Your task to perform on an android device: turn off sleep mode Image 0: 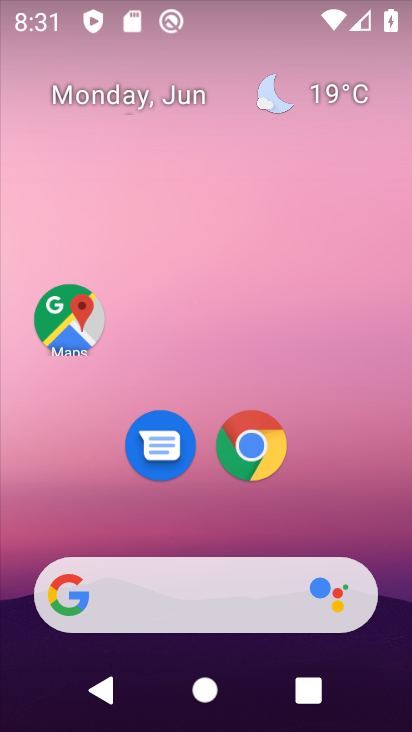
Step 0: drag from (153, 576) to (264, 141)
Your task to perform on an android device: turn off sleep mode Image 1: 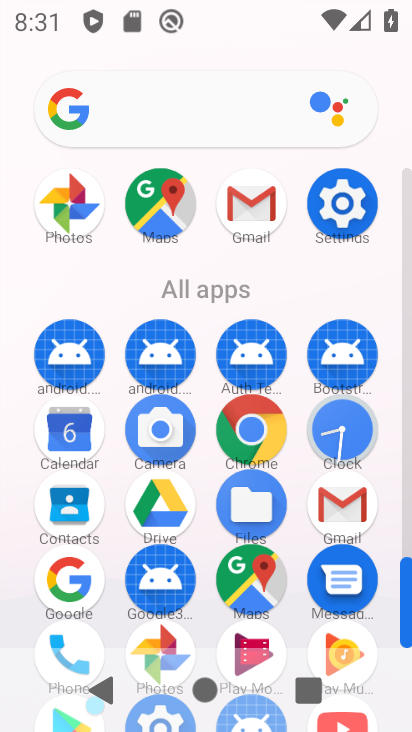
Step 1: drag from (128, 560) to (234, 254)
Your task to perform on an android device: turn off sleep mode Image 2: 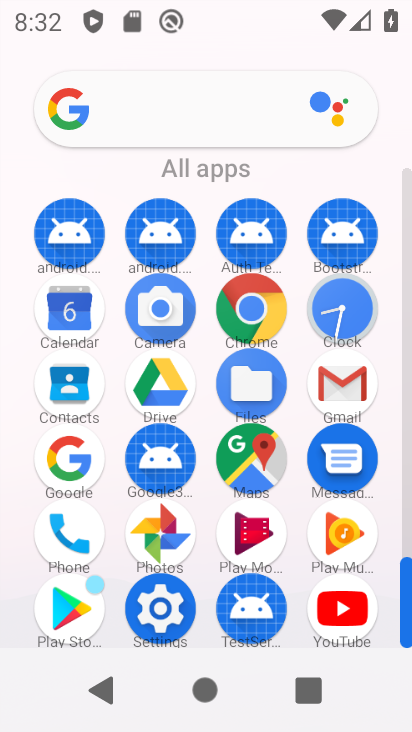
Step 2: click (171, 595)
Your task to perform on an android device: turn off sleep mode Image 3: 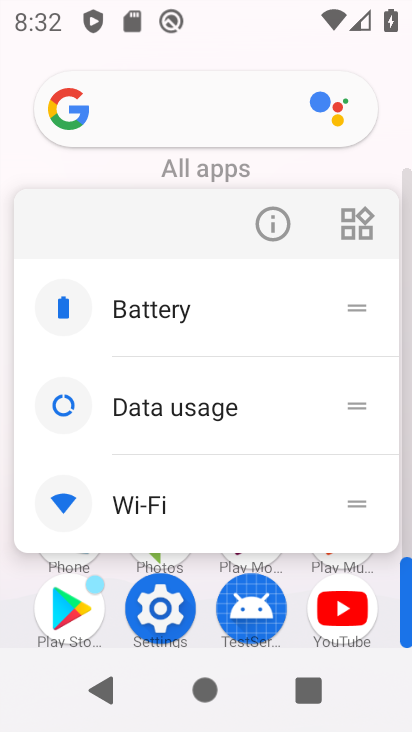
Step 3: click (187, 599)
Your task to perform on an android device: turn off sleep mode Image 4: 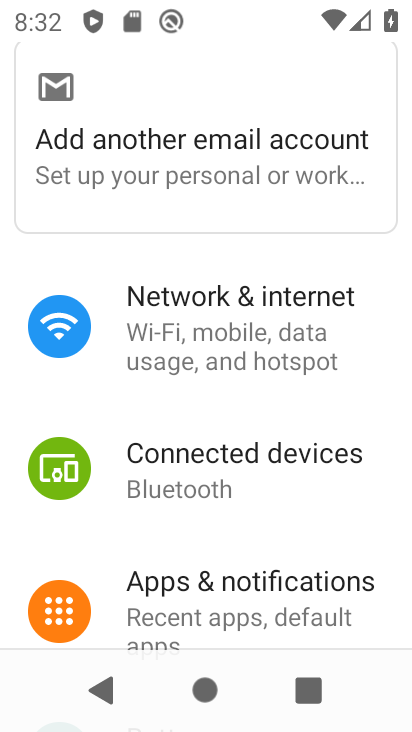
Step 4: drag from (215, 607) to (347, 160)
Your task to perform on an android device: turn off sleep mode Image 5: 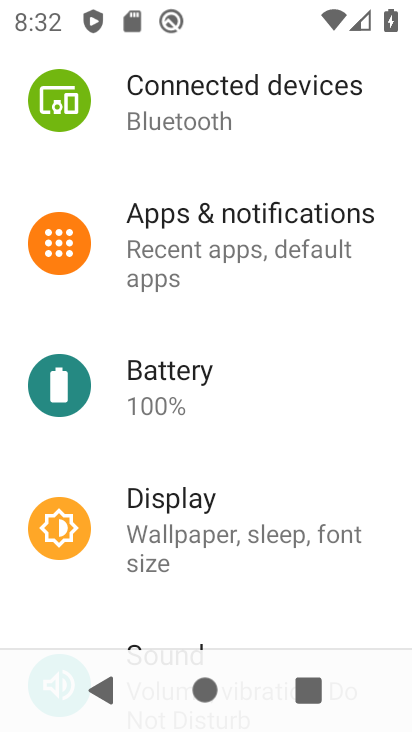
Step 5: click (229, 539)
Your task to perform on an android device: turn off sleep mode Image 6: 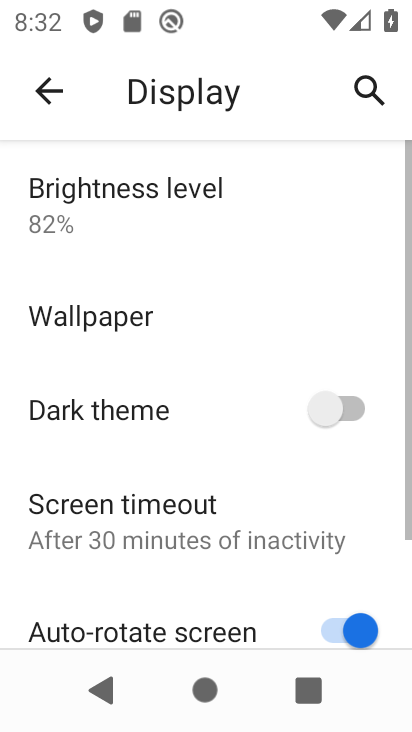
Step 6: drag from (190, 550) to (291, 137)
Your task to perform on an android device: turn off sleep mode Image 7: 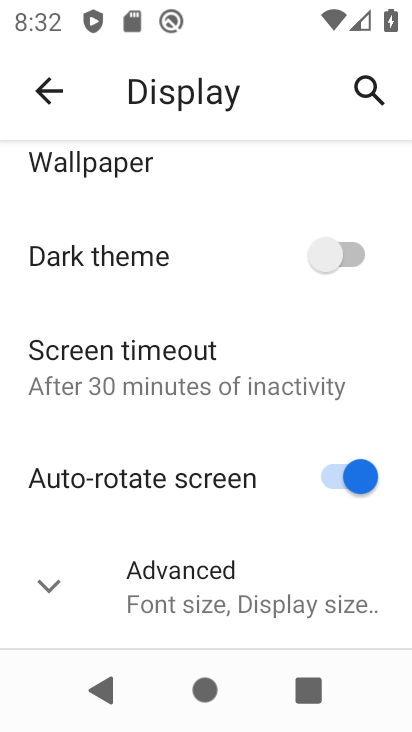
Step 7: click (254, 610)
Your task to perform on an android device: turn off sleep mode Image 8: 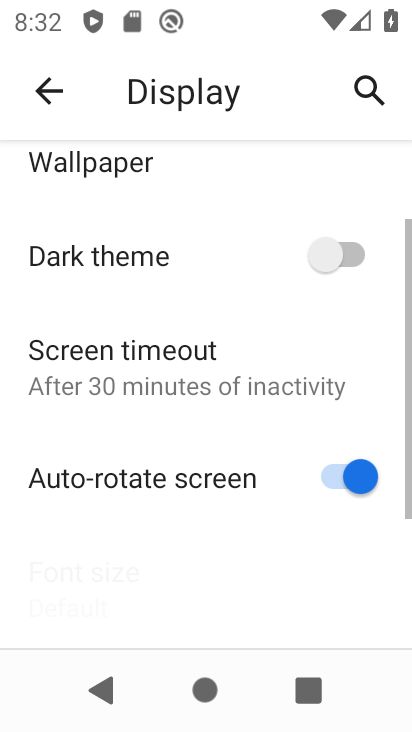
Step 8: task complete